Your task to perform on an android device: Open settings on Google Maps Image 0: 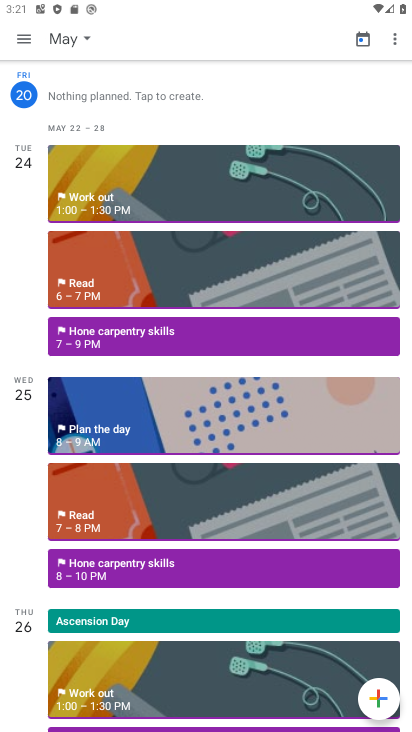
Step 0: press home button
Your task to perform on an android device: Open settings on Google Maps Image 1: 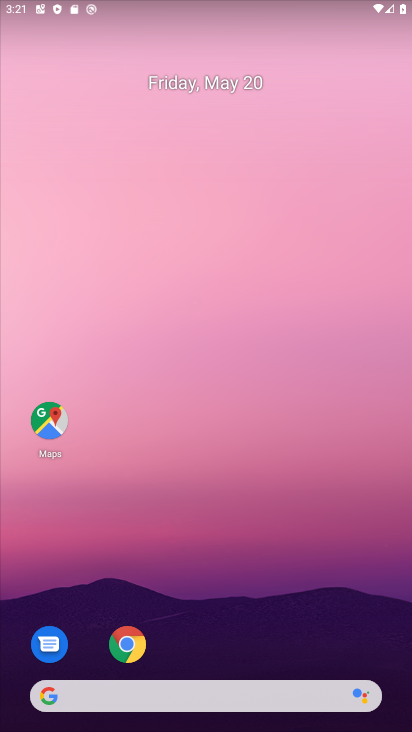
Step 1: click (52, 405)
Your task to perform on an android device: Open settings on Google Maps Image 2: 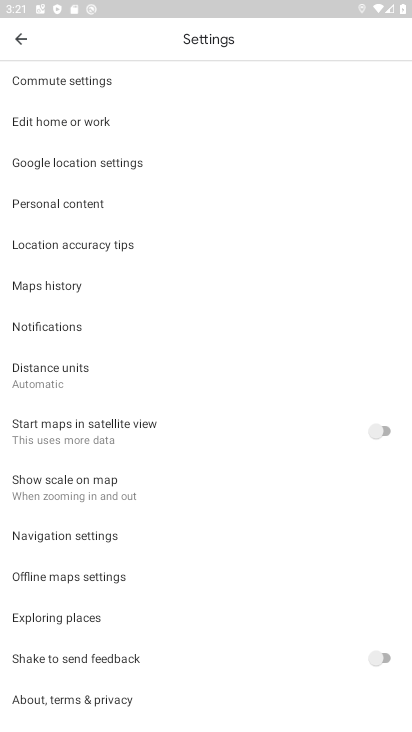
Step 2: task complete